Your task to perform on an android device: Go to network settings Image 0: 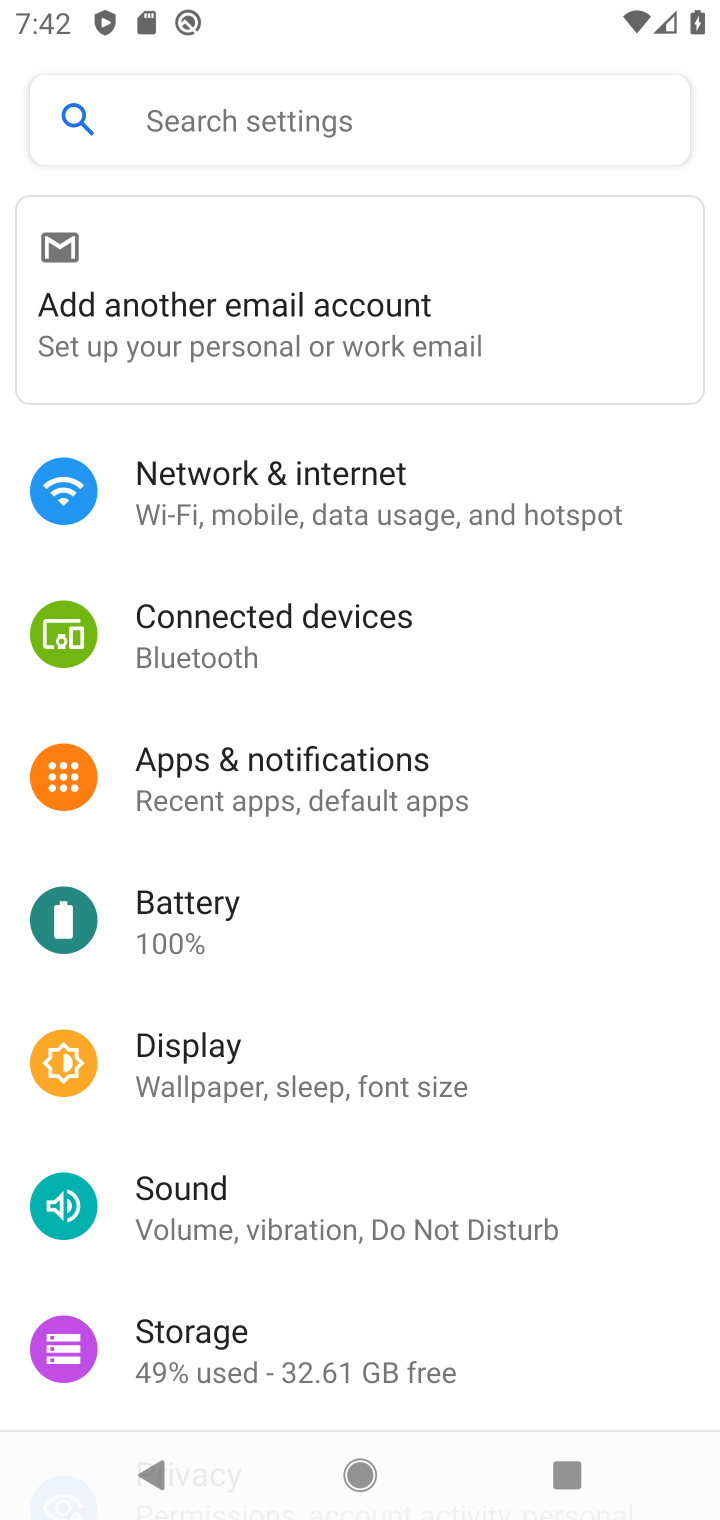
Step 0: click (383, 494)
Your task to perform on an android device: Go to network settings Image 1: 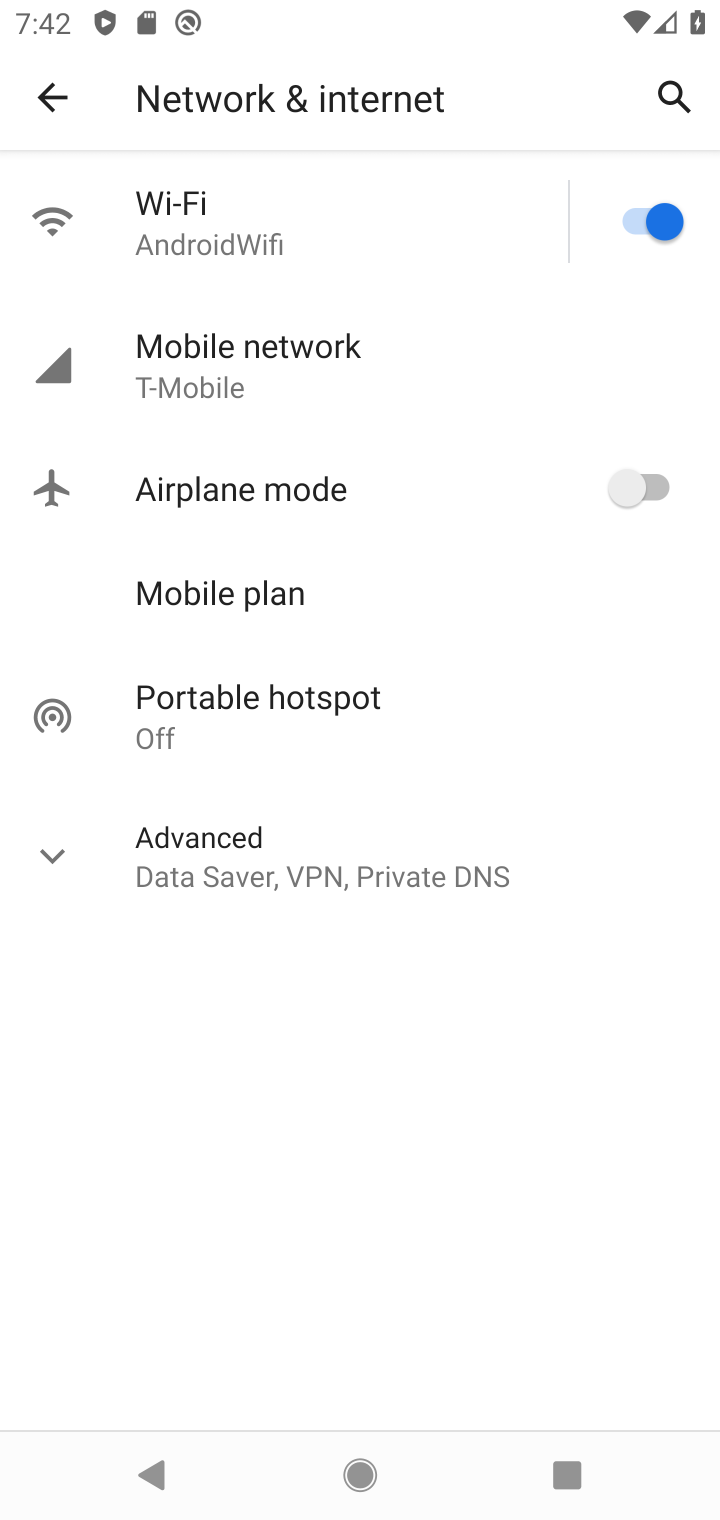
Step 1: task complete